Your task to perform on an android device: change the clock display to analog Image 0: 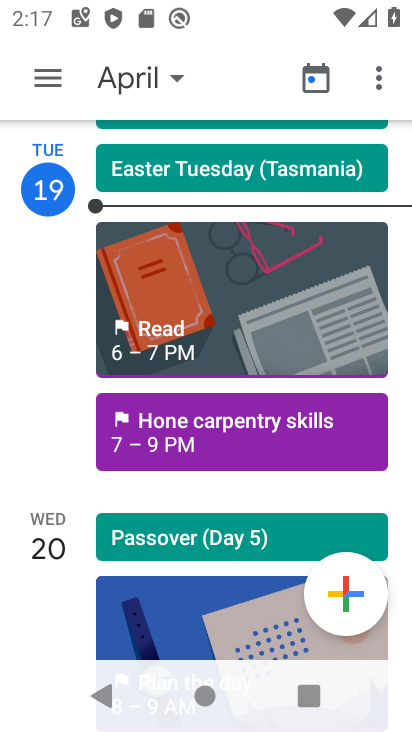
Step 0: press home button
Your task to perform on an android device: change the clock display to analog Image 1: 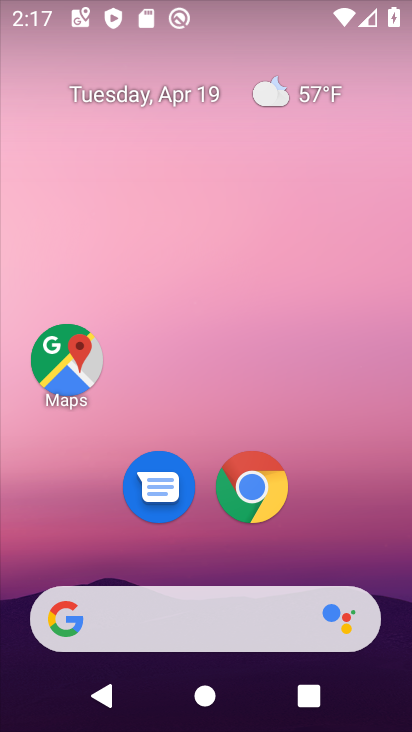
Step 1: drag from (216, 446) to (222, 29)
Your task to perform on an android device: change the clock display to analog Image 2: 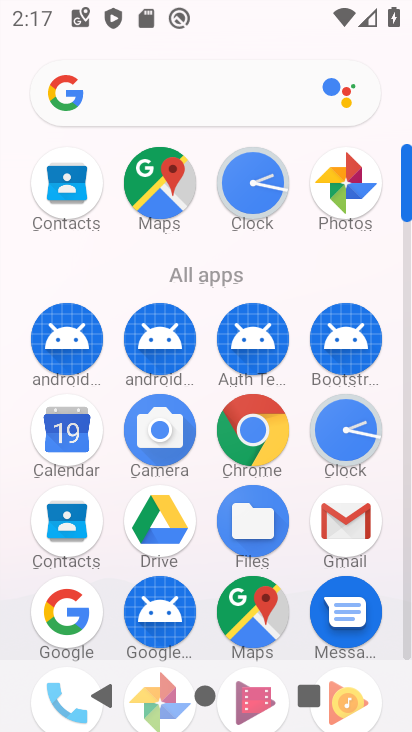
Step 2: click (335, 458)
Your task to perform on an android device: change the clock display to analog Image 3: 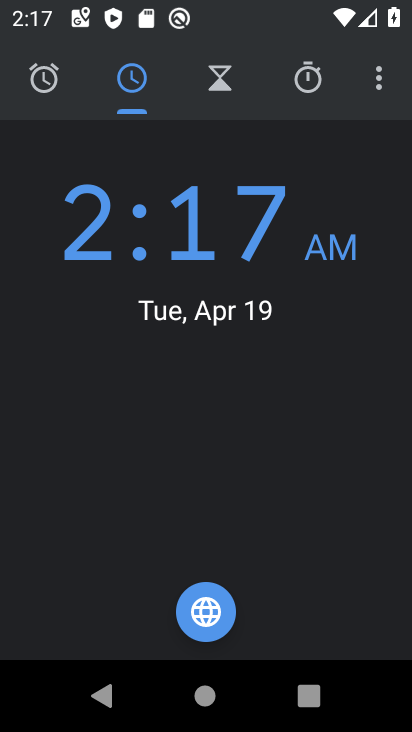
Step 3: click (371, 75)
Your task to perform on an android device: change the clock display to analog Image 4: 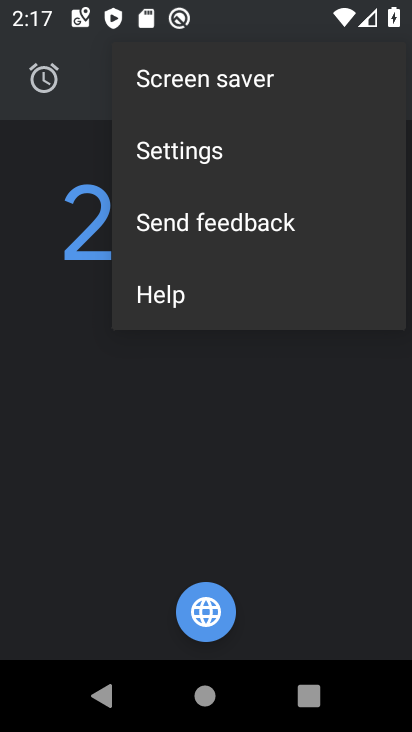
Step 4: click (278, 157)
Your task to perform on an android device: change the clock display to analog Image 5: 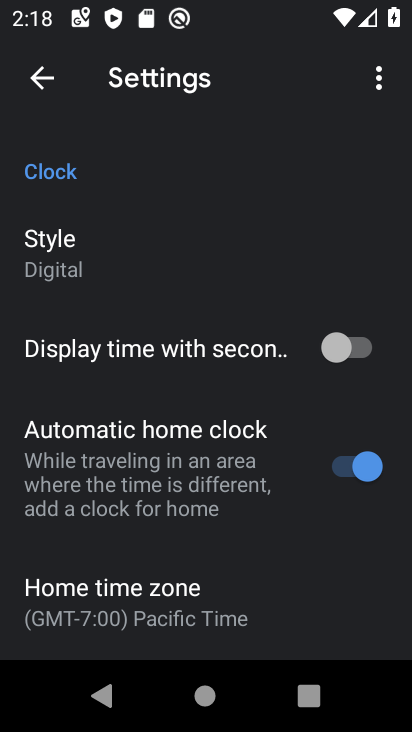
Step 5: click (80, 259)
Your task to perform on an android device: change the clock display to analog Image 6: 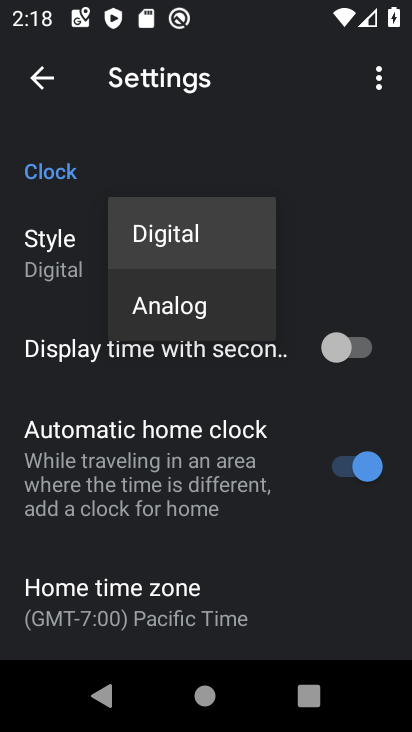
Step 6: click (148, 303)
Your task to perform on an android device: change the clock display to analog Image 7: 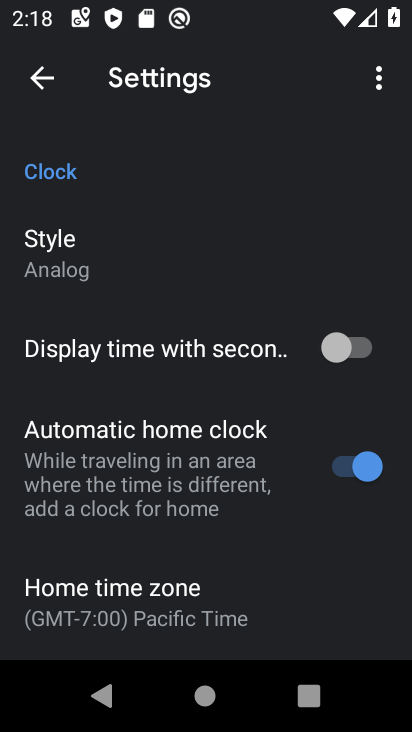
Step 7: task complete